Your task to perform on an android device: Toggle the flashlight Image 0: 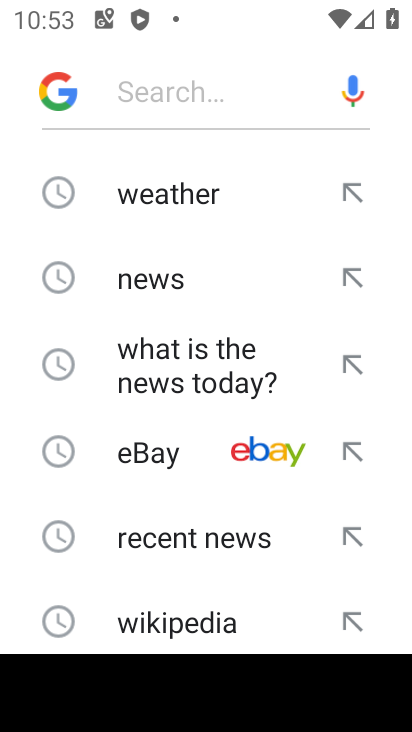
Step 0: press home button
Your task to perform on an android device: Toggle the flashlight Image 1: 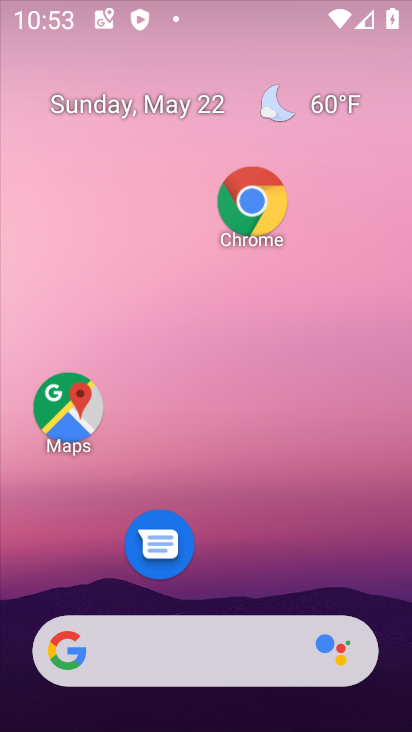
Step 1: drag from (297, 549) to (268, 39)
Your task to perform on an android device: Toggle the flashlight Image 2: 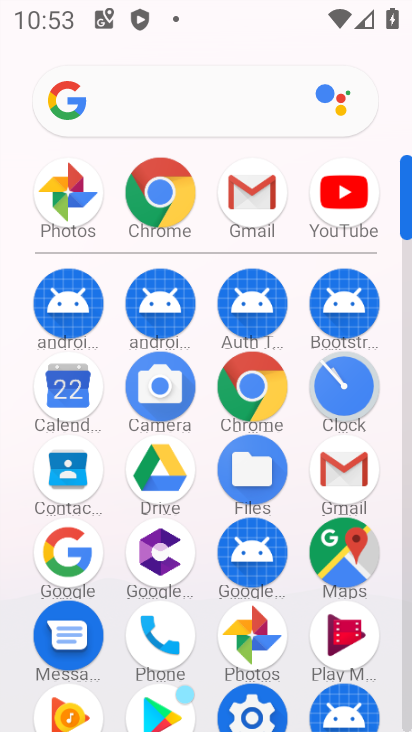
Step 2: click (253, 711)
Your task to perform on an android device: Toggle the flashlight Image 3: 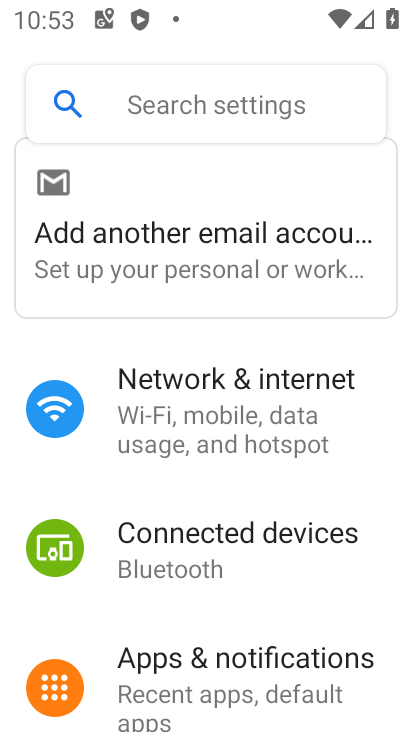
Step 3: click (189, 105)
Your task to perform on an android device: Toggle the flashlight Image 4: 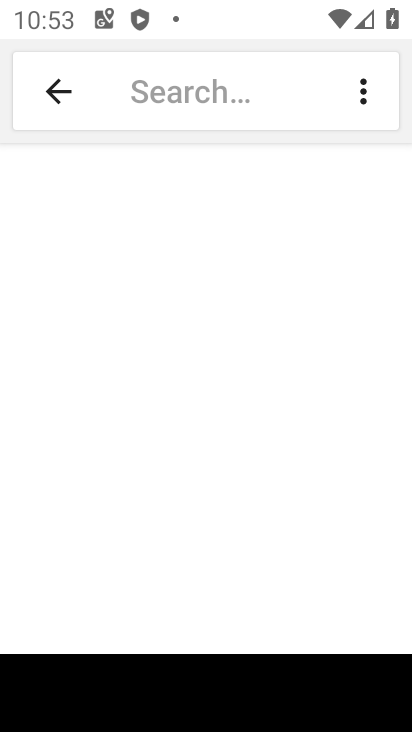
Step 4: type "flash"
Your task to perform on an android device: Toggle the flashlight Image 5: 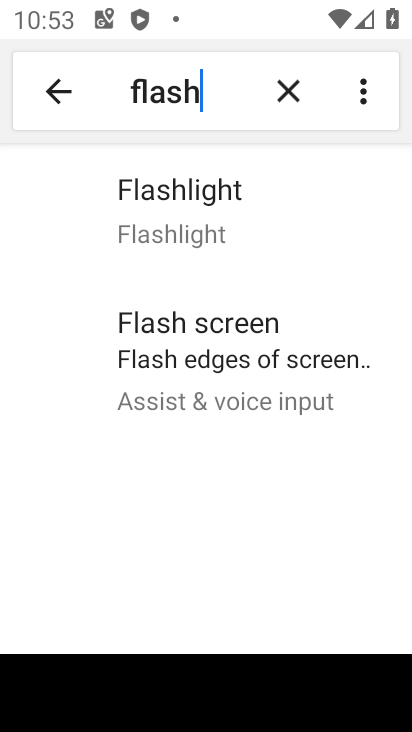
Step 5: click (185, 216)
Your task to perform on an android device: Toggle the flashlight Image 6: 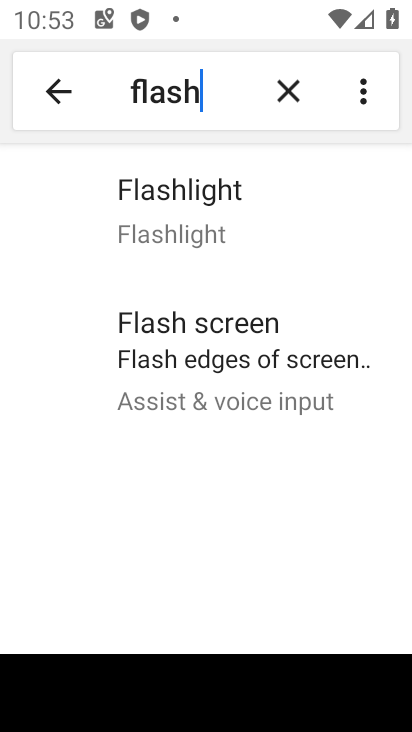
Step 6: task complete